Your task to perform on an android device: Open Google Chrome and open the bookmarks view Image 0: 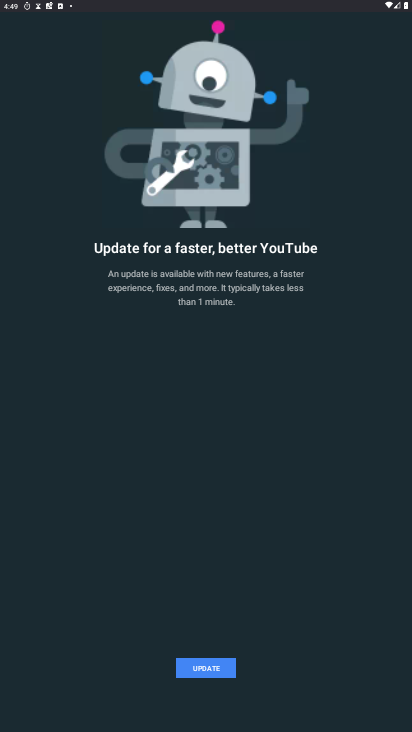
Step 0: press home button
Your task to perform on an android device: Open Google Chrome and open the bookmarks view Image 1: 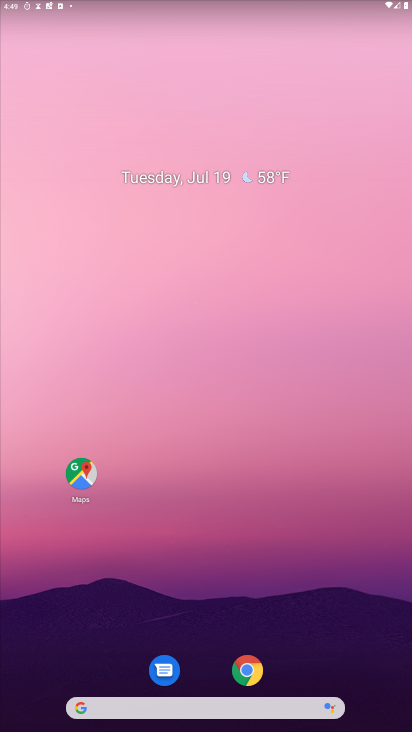
Step 1: drag from (182, 673) to (241, 22)
Your task to perform on an android device: Open Google Chrome and open the bookmarks view Image 2: 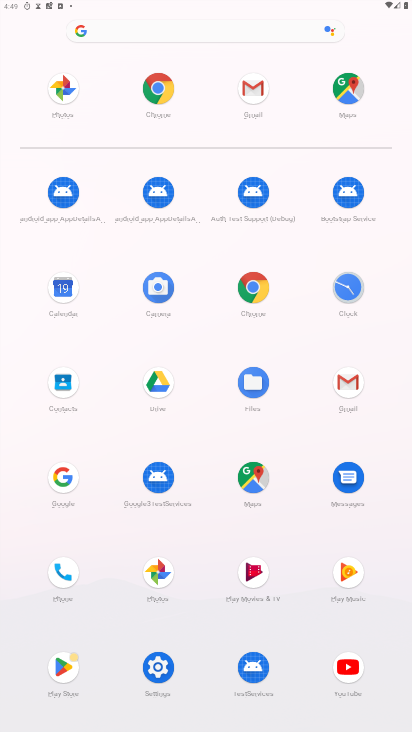
Step 2: click (256, 292)
Your task to perform on an android device: Open Google Chrome and open the bookmarks view Image 3: 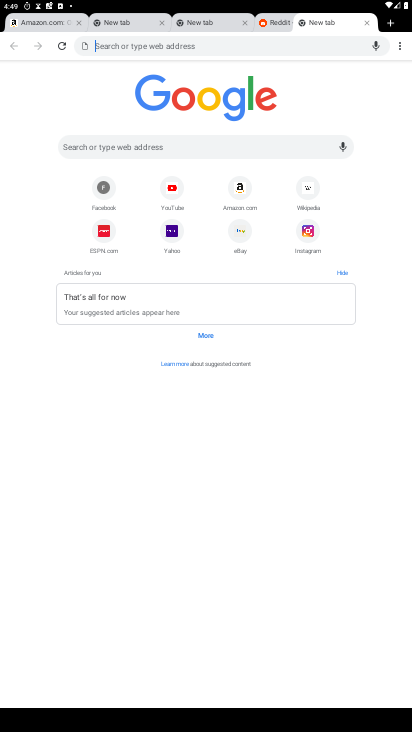
Step 3: click (405, 46)
Your task to perform on an android device: Open Google Chrome and open the bookmarks view Image 4: 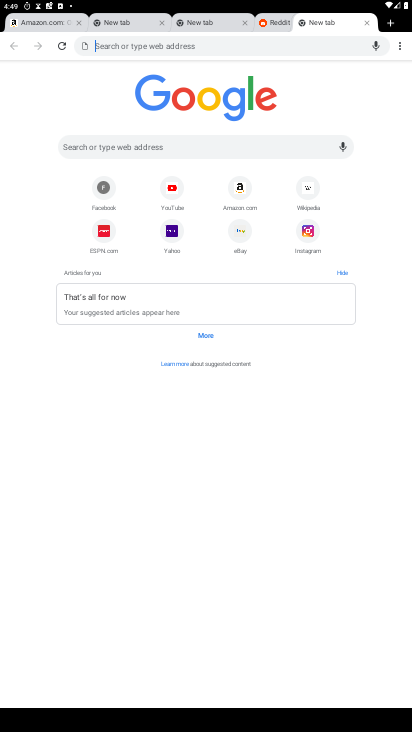
Step 4: drag from (402, 42) to (345, 126)
Your task to perform on an android device: Open Google Chrome and open the bookmarks view Image 5: 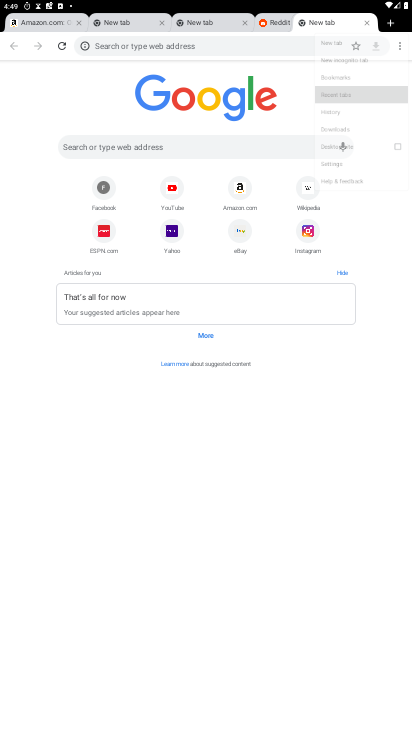
Step 5: click (344, 96)
Your task to perform on an android device: Open Google Chrome and open the bookmarks view Image 6: 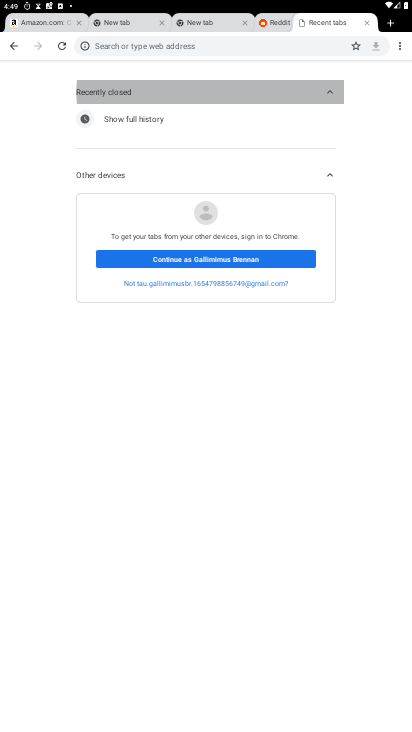
Step 6: click (344, 96)
Your task to perform on an android device: Open Google Chrome and open the bookmarks view Image 7: 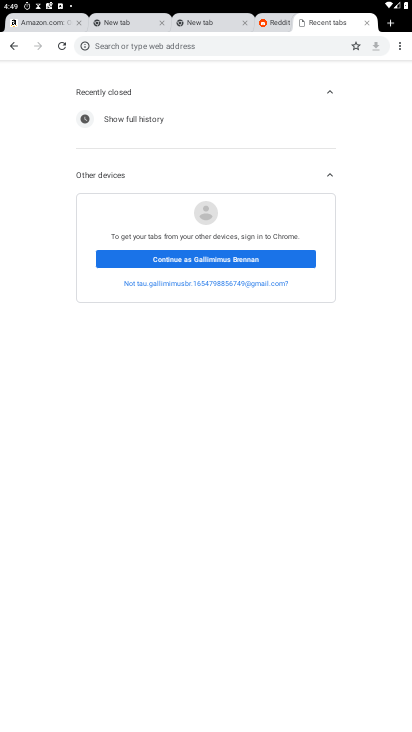
Step 7: task complete